Your task to perform on an android device: add a label to a message in the gmail app Image 0: 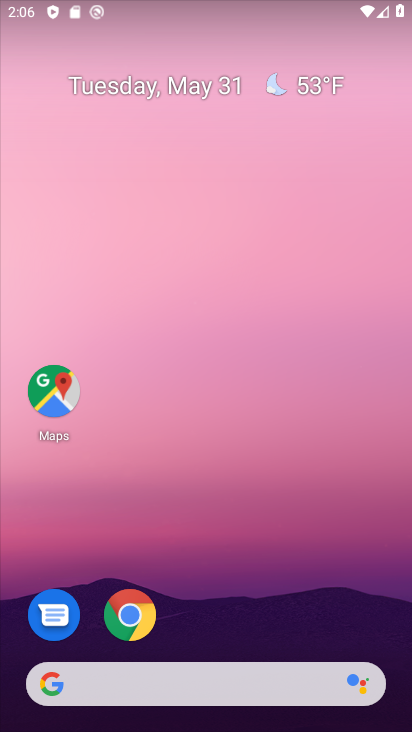
Step 0: drag from (263, 576) to (282, 136)
Your task to perform on an android device: add a label to a message in the gmail app Image 1: 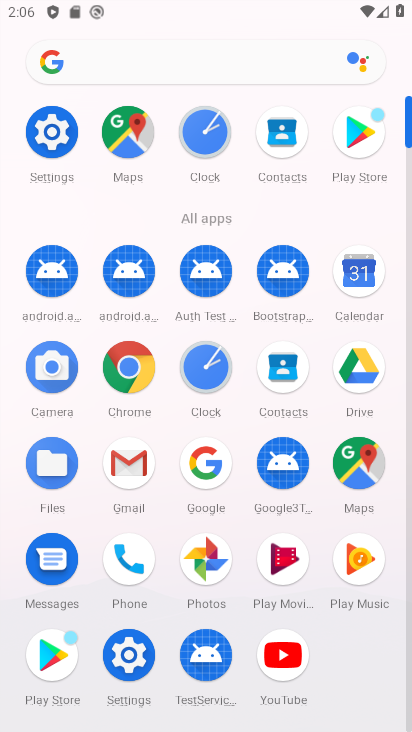
Step 1: click (130, 478)
Your task to perform on an android device: add a label to a message in the gmail app Image 2: 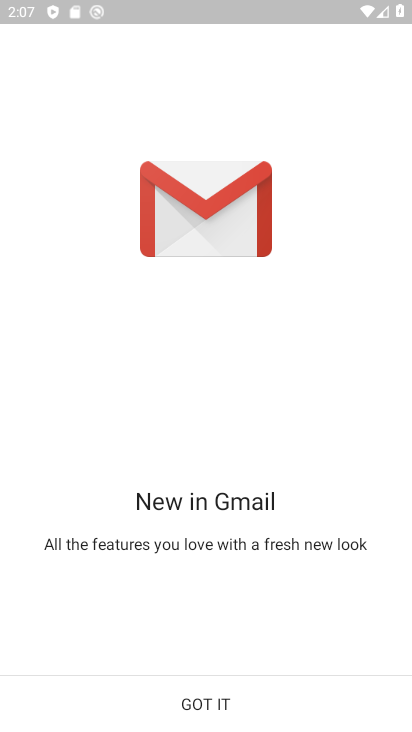
Step 2: click (180, 694)
Your task to perform on an android device: add a label to a message in the gmail app Image 3: 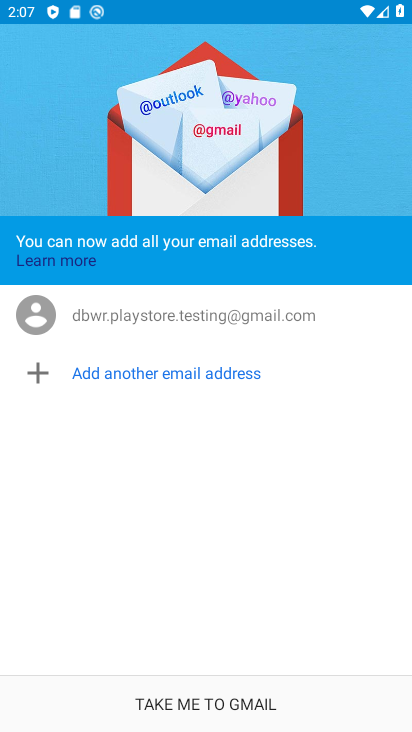
Step 3: click (195, 722)
Your task to perform on an android device: add a label to a message in the gmail app Image 4: 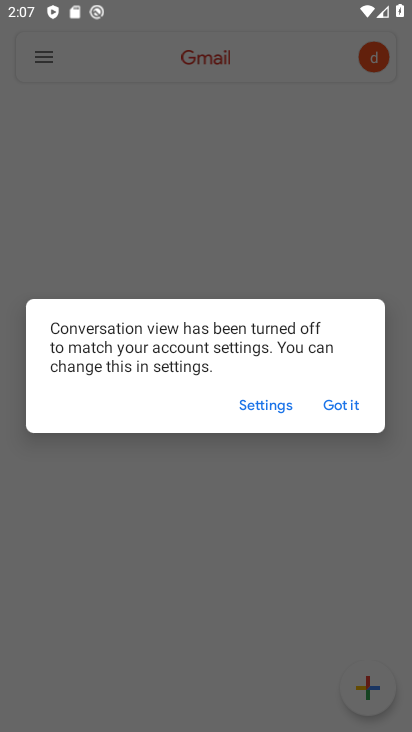
Step 4: click (346, 399)
Your task to perform on an android device: add a label to a message in the gmail app Image 5: 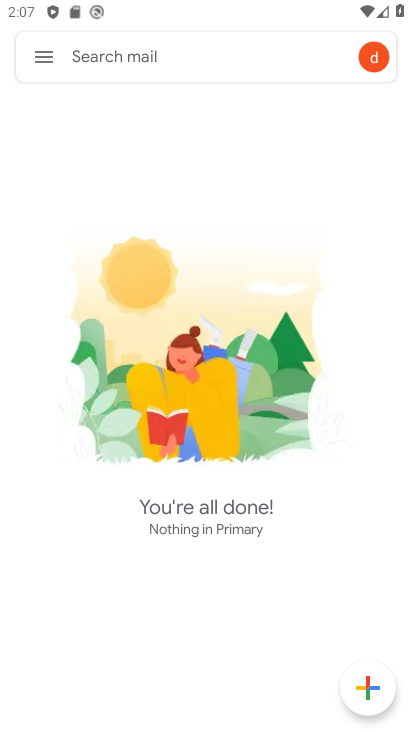
Step 5: click (43, 59)
Your task to perform on an android device: add a label to a message in the gmail app Image 6: 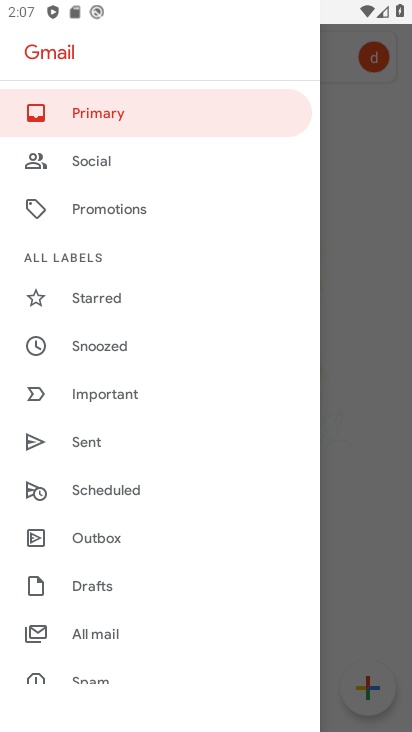
Step 6: click (85, 629)
Your task to perform on an android device: add a label to a message in the gmail app Image 7: 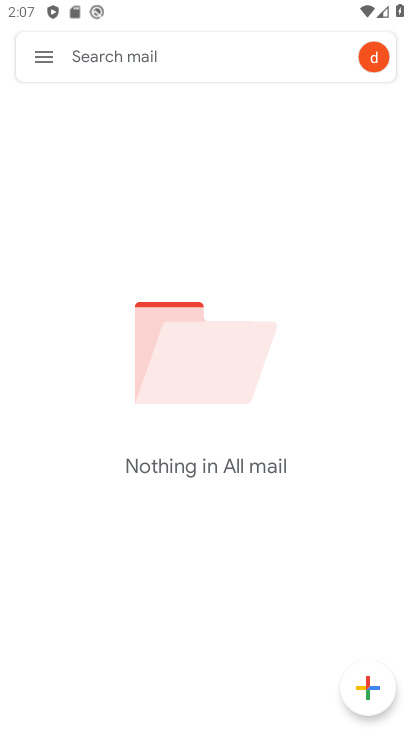
Step 7: task complete